Your task to perform on an android device: Go to calendar. Show me events next week Image 0: 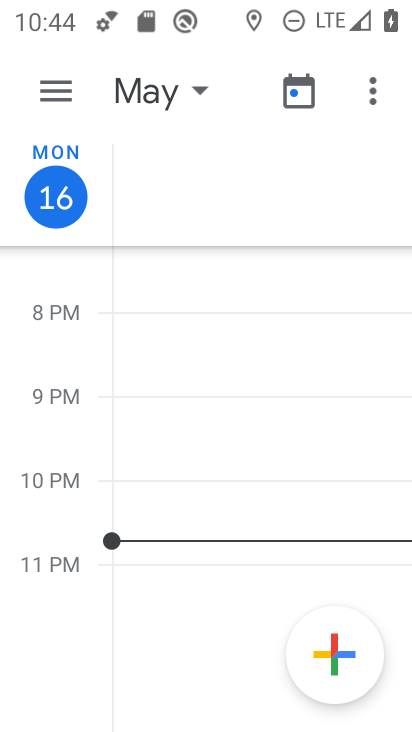
Step 0: press home button
Your task to perform on an android device: Go to calendar. Show me events next week Image 1: 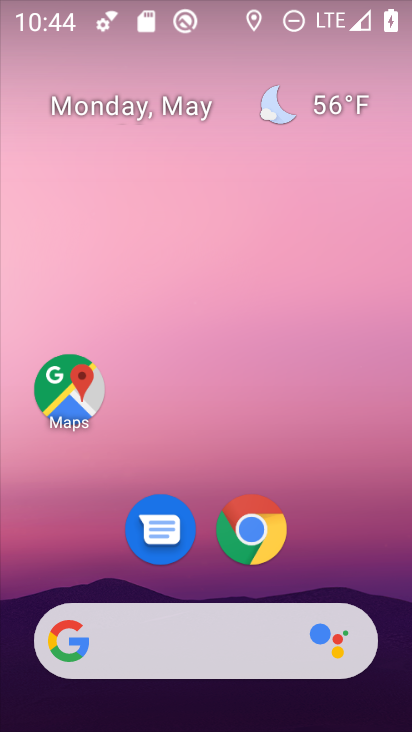
Step 1: drag from (214, 619) to (204, 229)
Your task to perform on an android device: Go to calendar. Show me events next week Image 2: 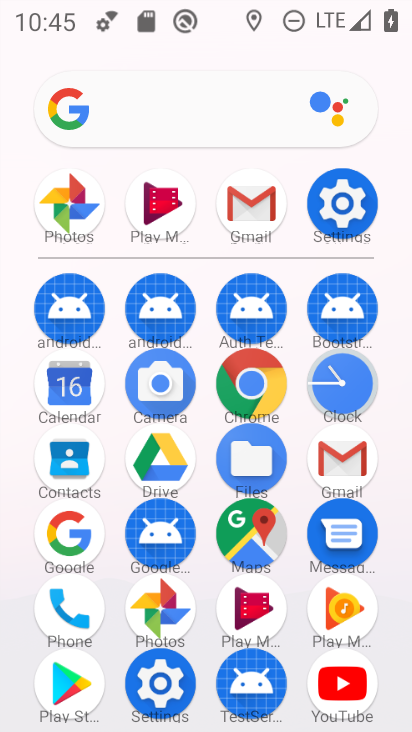
Step 2: click (81, 398)
Your task to perform on an android device: Go to calendar. Show me events next week Image 3: 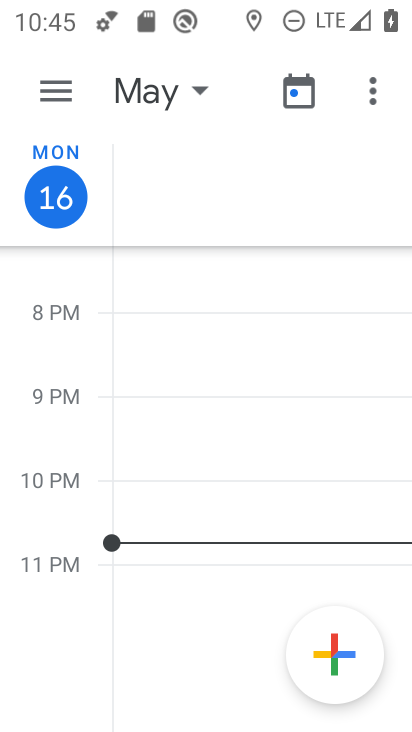
Step 3: click (55, 97)
Your task to perform on an android device: Go to calendar. Show me events next week Image 4: 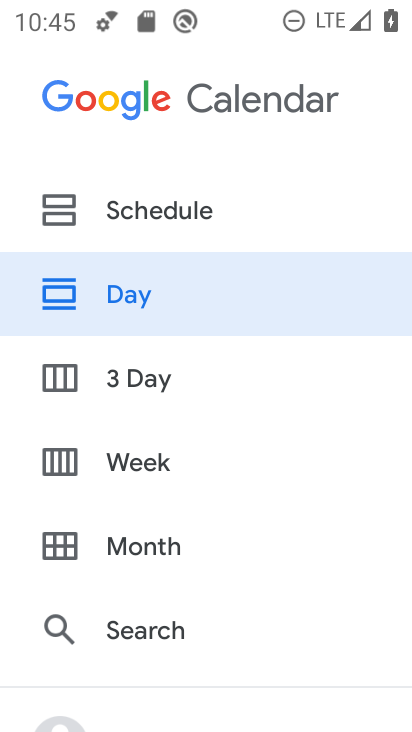
Step 4: click (129, 468)
Your task to perform on an android device: Go to calendar. Show me events next week Image 5: 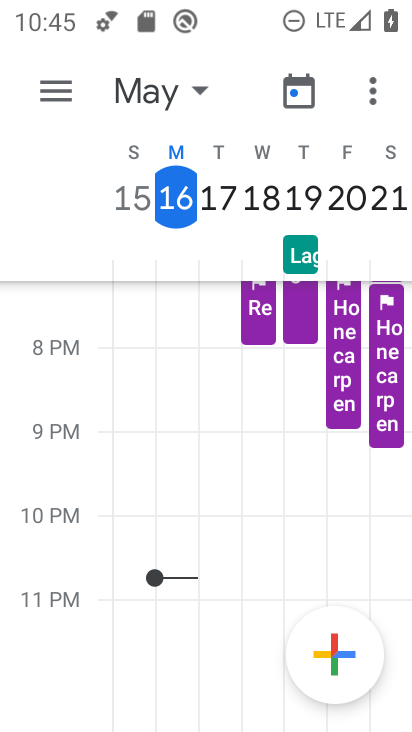
Step 5: task complete